Your task to perform on an android device: View the shopping cart on amazon.com. Search for sony triple a on amazon.com, select the first entry, add it to the cart, then select checkout. Image 0: 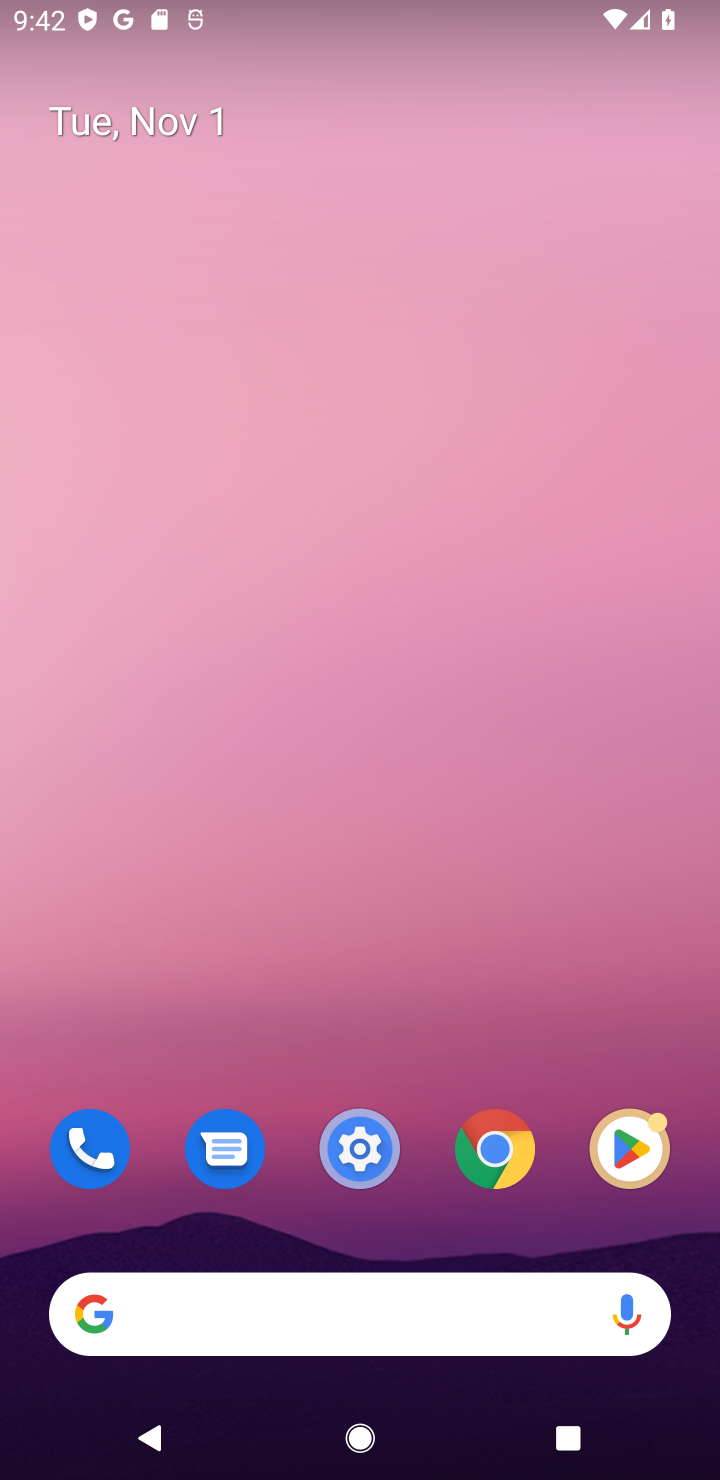
Step 0: click (146, 1316)
Your task to perform on an android device: View the shopping cart on amazon.com. Search for sony triple a on amazon.com, select the first entry, add it to the cart, then select checkout. Image 1: 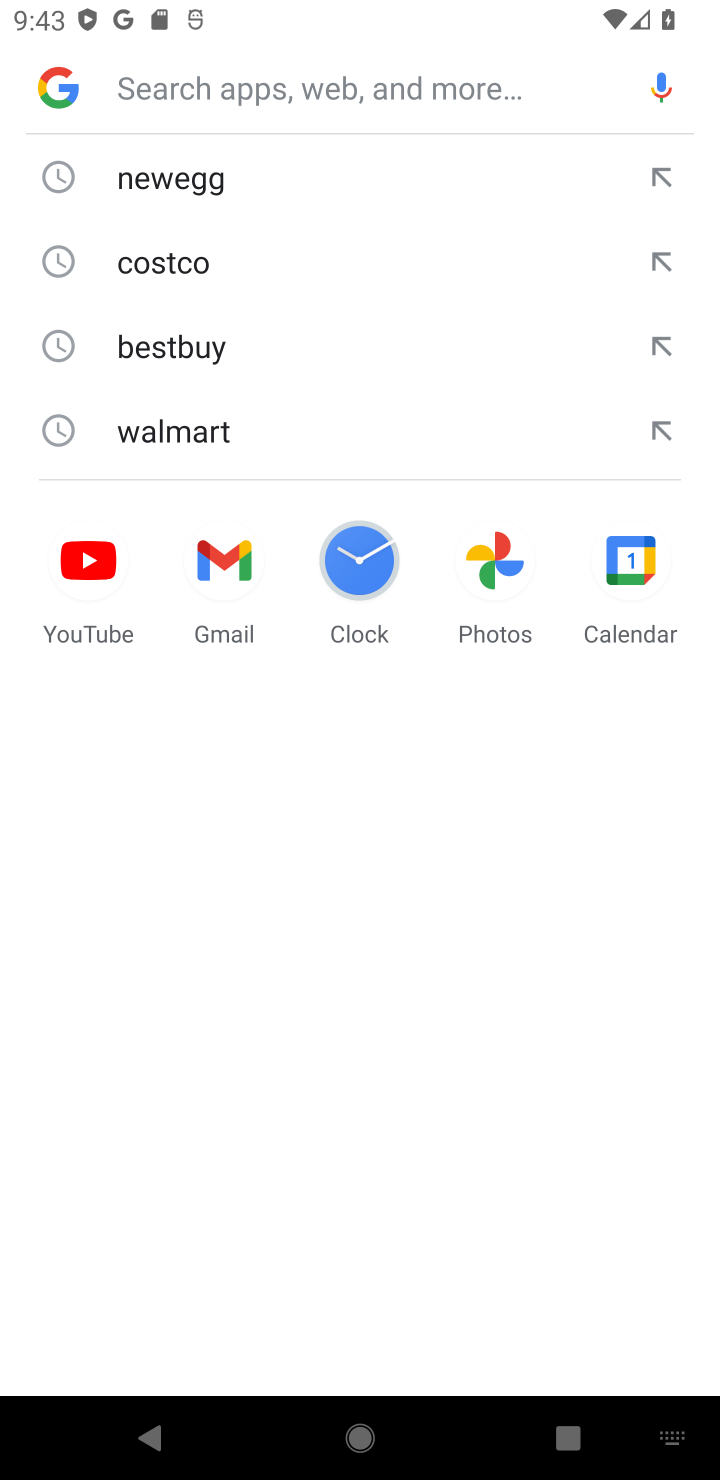
Step 1: type "amazon.com"
Your task to perform on an android device: View the shopping cart on amazon.com. Search for sony triple a on amazon.com, select the first entry, add it to the cart, then select checkout. Image 2: 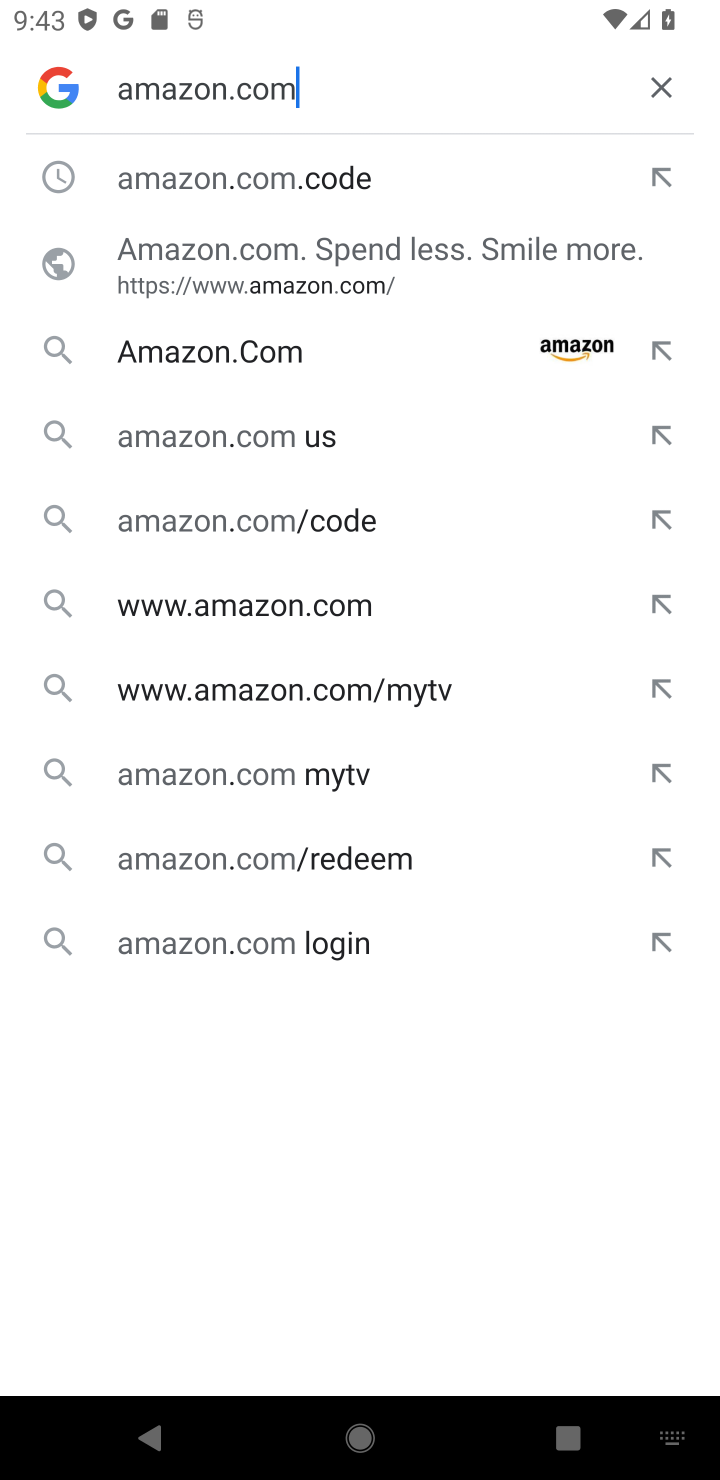
Step 2: press enter
Your task to perform on an android device: View the shopping cart on amazon.com. Search for sony triple a on amazon.com, select the first entry, add it to the cart, then select checkout. Image 3: 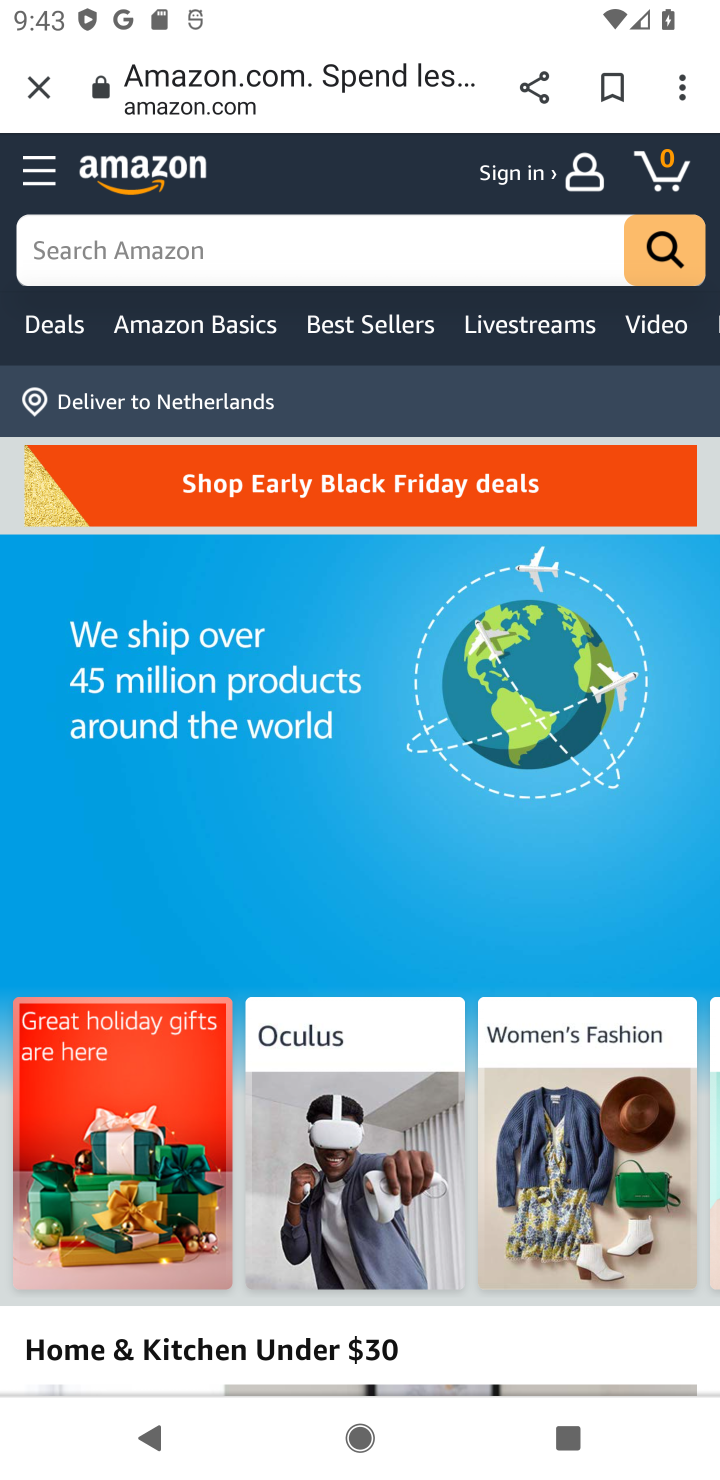
Step 3: task complete